Your task to perform on an android device: Go to settings Image 0: 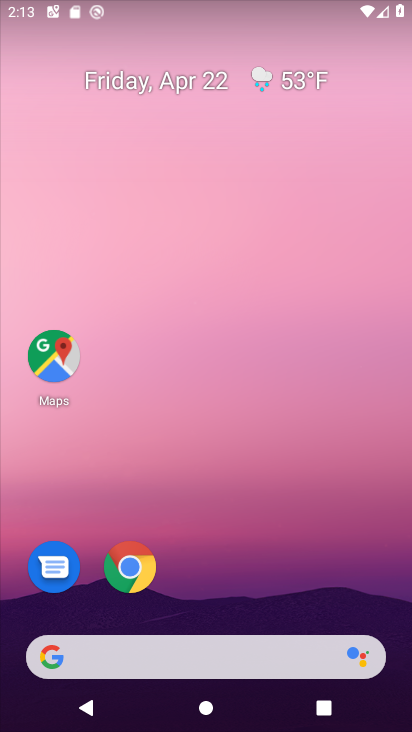
Step 0: drag from (314, 525) to (340, 122)
Your task to perform on an android device: Go to settings Image 1: 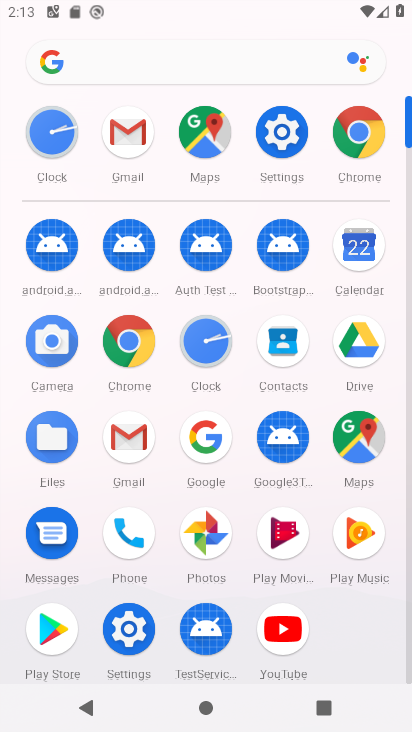
Step 1: click (287, 127)
Your task to perform on an android device: Go to settings Image 2: 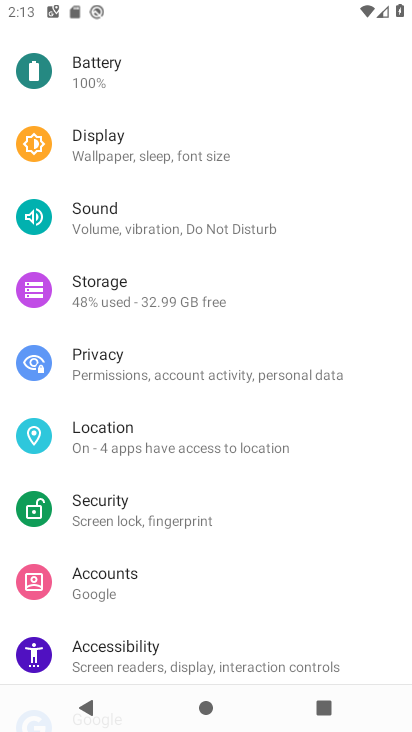
Step 2: task complete